Your task to perform on an android device: Show me recent news Image 0: 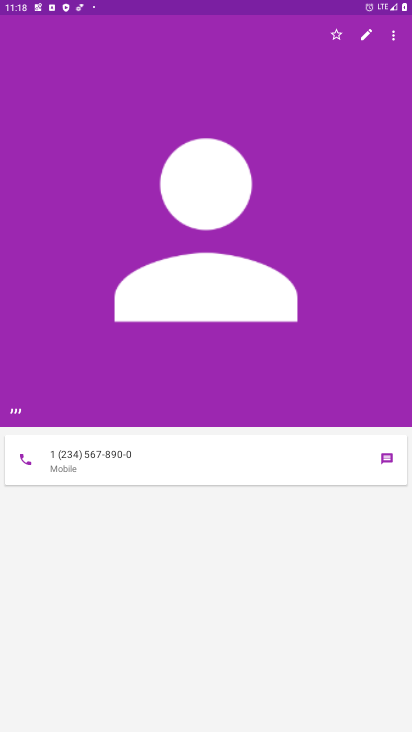
Step 0: press home button
Your task to perform on an android device: Show me recent news Image 1: 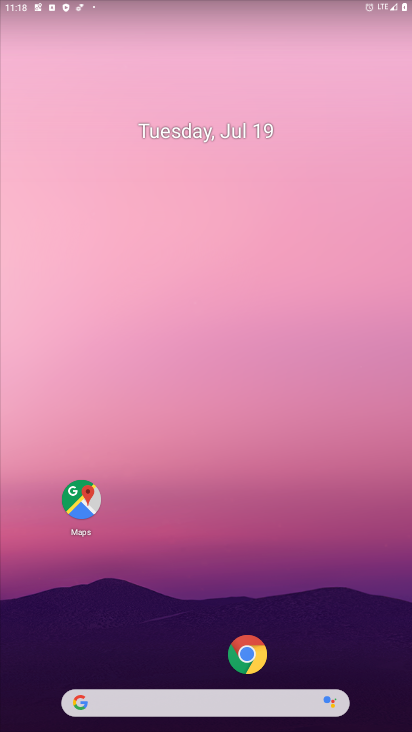
Step 1: click (249, 645)
Your task to perform on an android device: Show me recent news Image 2: 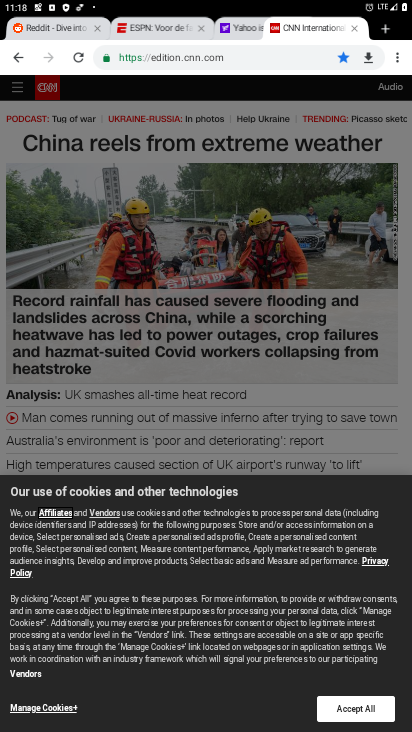
Step 2: click (380, 29)
Your task to perform on an android device: Show me recent news Image 3: 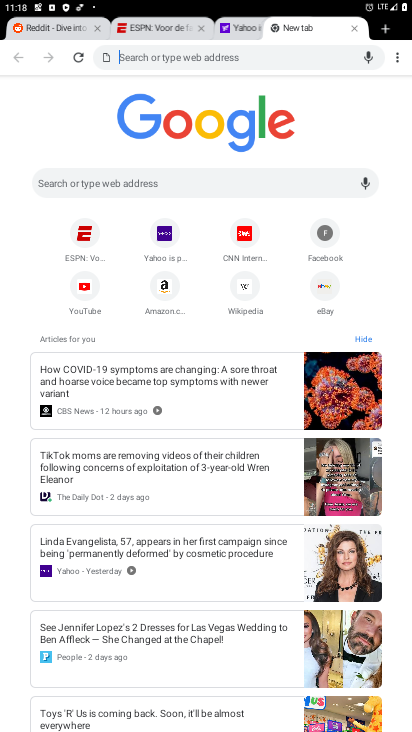
Step 3: task complete